Your task to perform on an android device: turn on wifi Image 0: 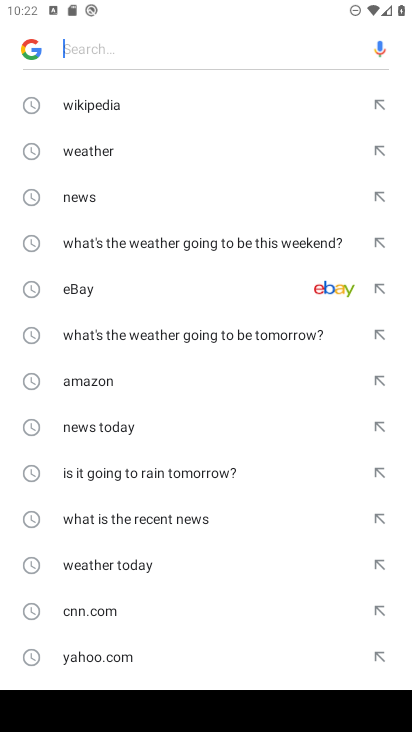
Step 0: press home button
Your task to perform on an android device: turn on wifi Image 1: 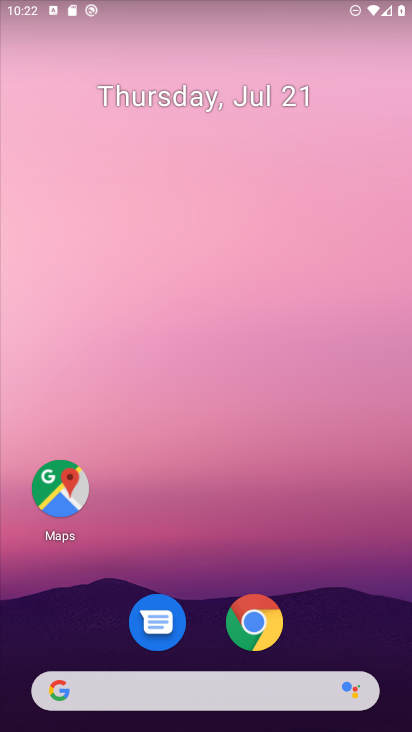
Step 1: drag from (186, 725) to (191, 209)
Your task to perform on an android device: turn on wifi Image 2: 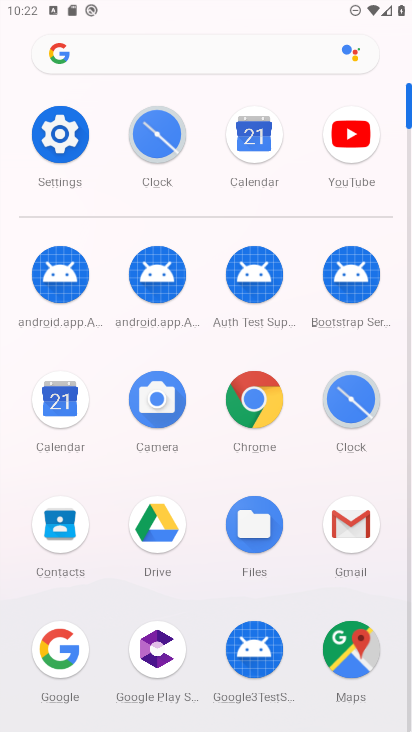
Step 2: click (60, 155)
Your task to perform on an android device: turn on wifi Image 3: 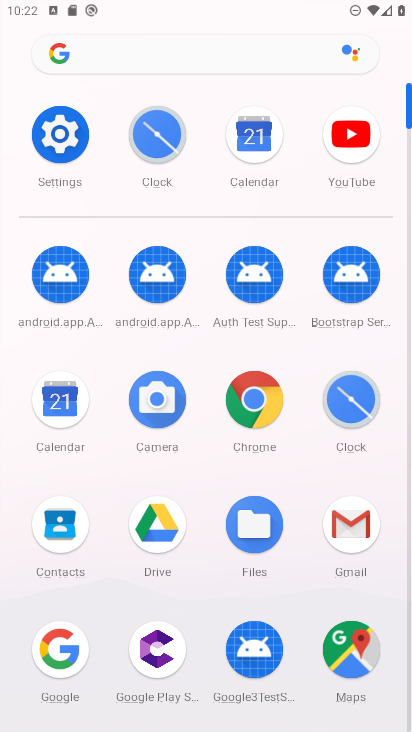
Step 3: click (60, 155)
Your task to perform on an android device: turn on wifi Image 4: 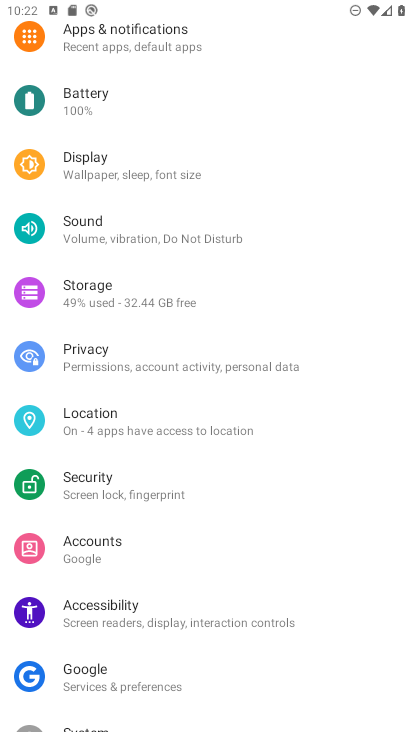
Step 4: drag from (203, 153) to (256, 630)
Your task to perform on an android device: turn on wifi Image 5: 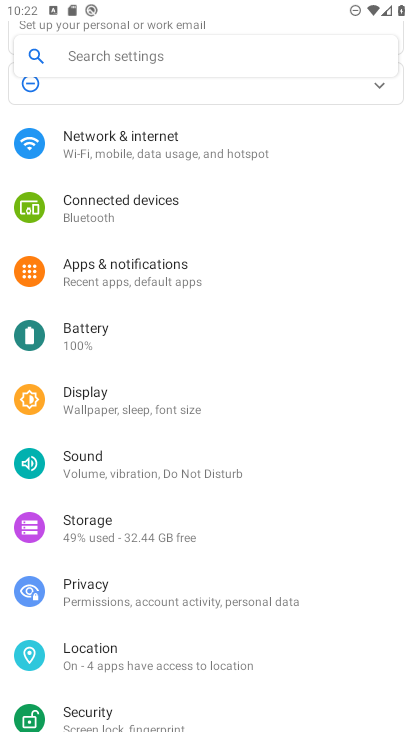
Step 5: click (208, 131)
Your task to perform on an android device: turn on wifi Image 6: 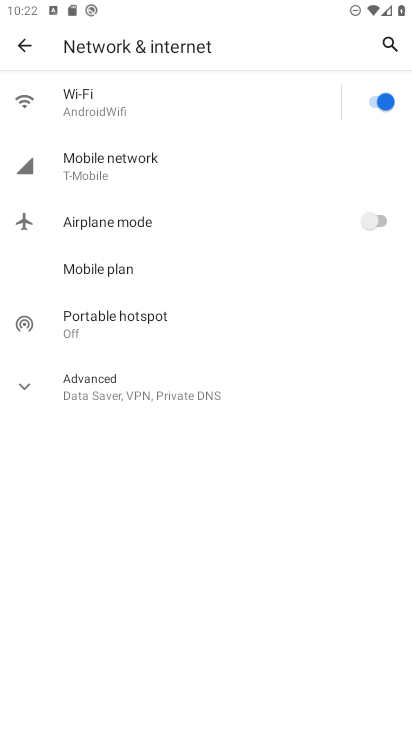
Step 6: task complete